Your task to perform on an android device: Show me popular videos on Youtube Image 0: 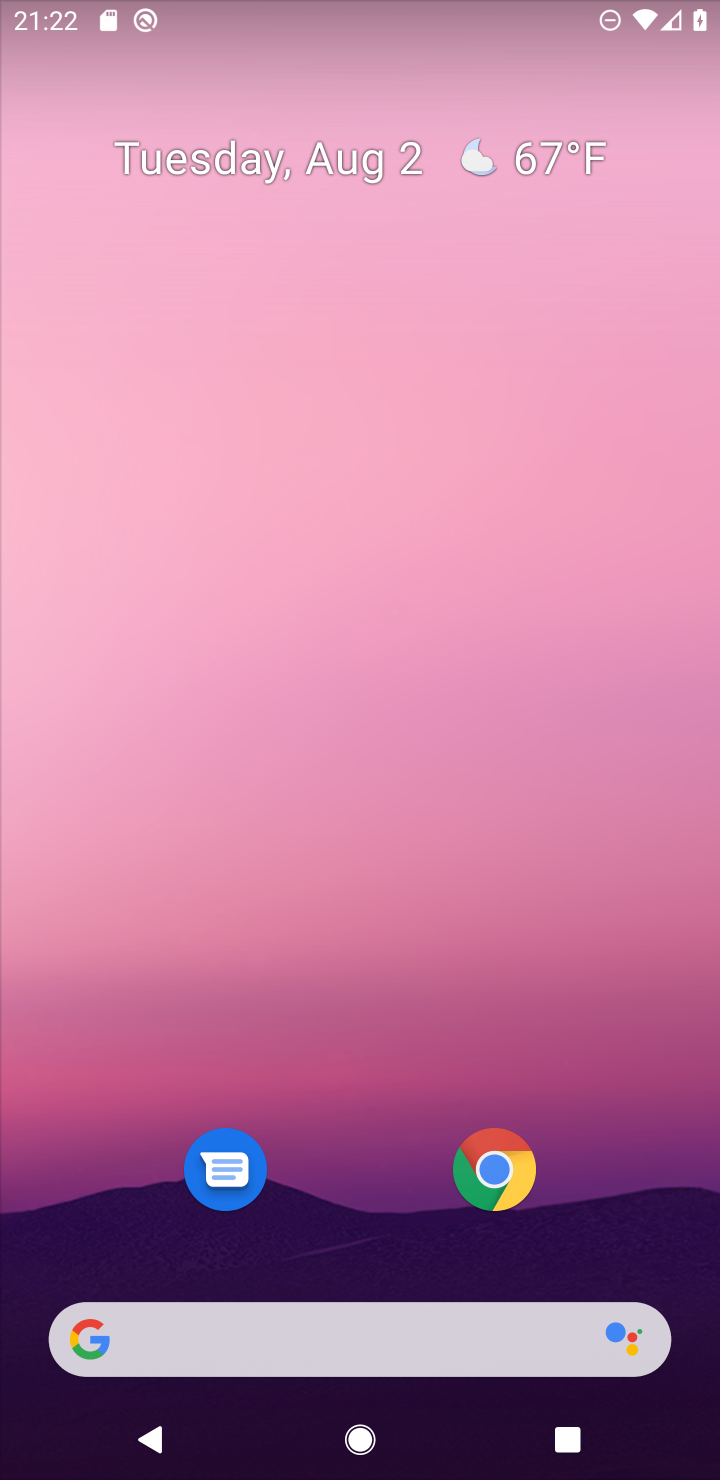
Step 0: drag from (335, 974) to (305, 175)
Your task to perform on an android device: Show me popular videos on Youtube Image 1: 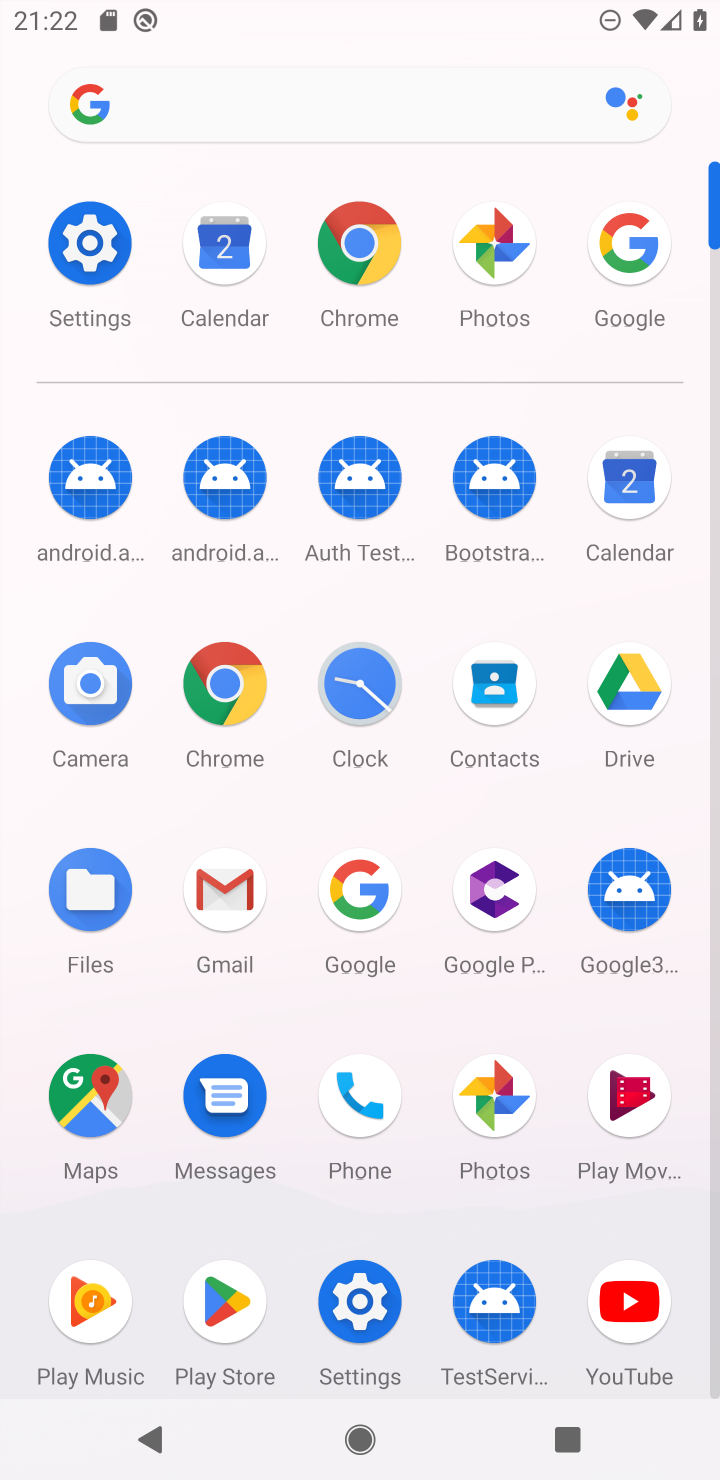
Step 1: click (627, 1292)
Your task to perform on an android device: Show me popular videos on Youtube Image 2: 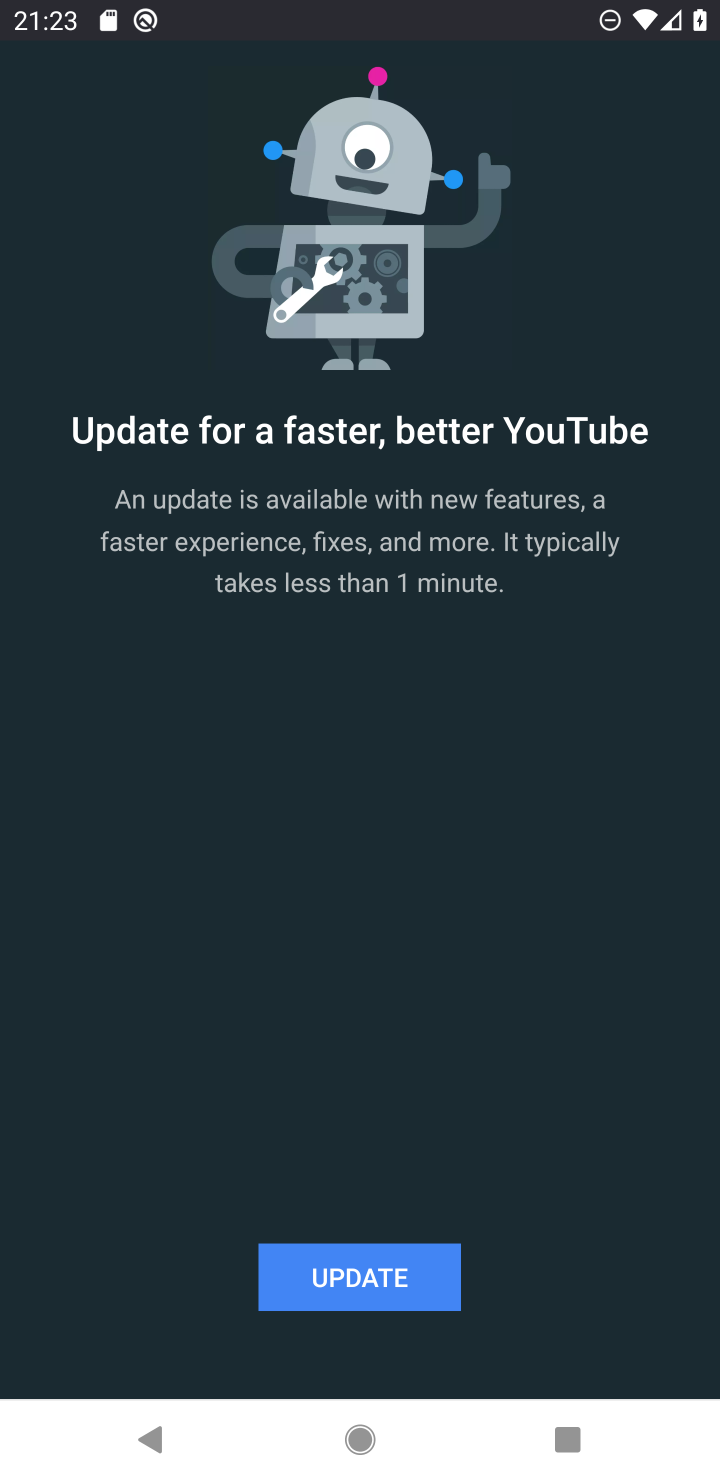
Step 2: task complete